Your task to perform on an android device: Do I have any events tomorrow? Image 0: 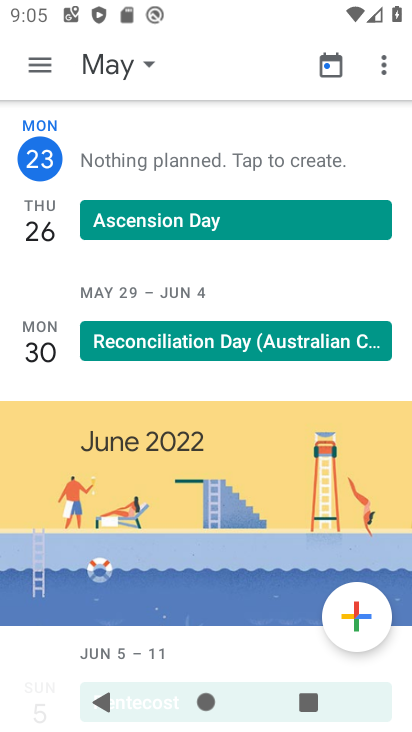
Step 0: click (43, 61)
Your task to perform on an android device: Do I have any events tomorrow? Image 1: 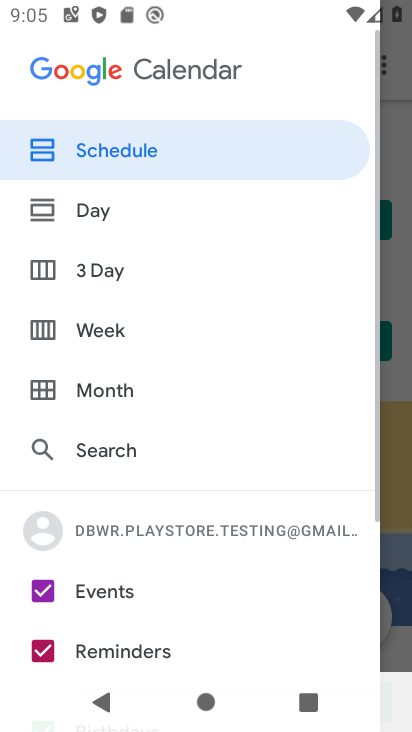
Step 1: click (40, 322)
Your task to perform on an android device: Do I have any events tomorrow? Image 2: 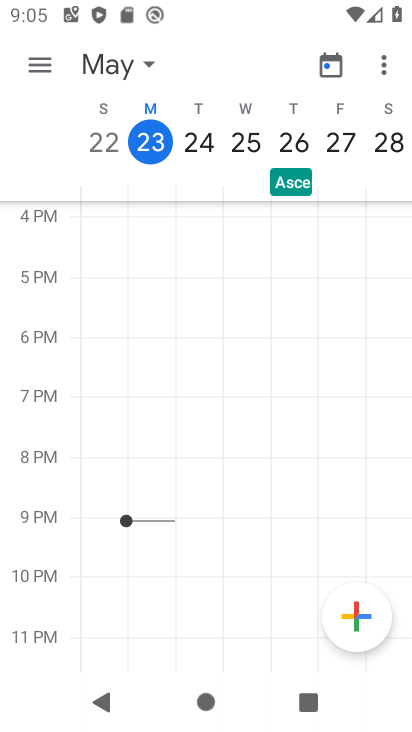
Step 2: drag from (266, 484) to (309, 174)
Your task to perform on an android device: Do I have any events tomorrow? Image 3: 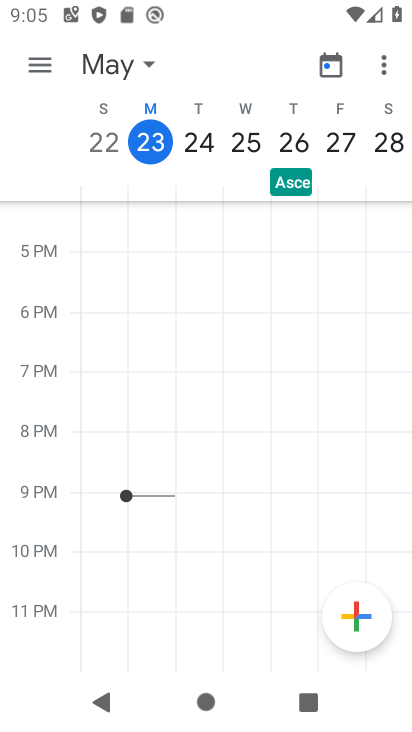
Step 3: drag from (271, 315) to (295, 611)
Your task to perform on an android device: Do I have any events tomorrow? Image 4: 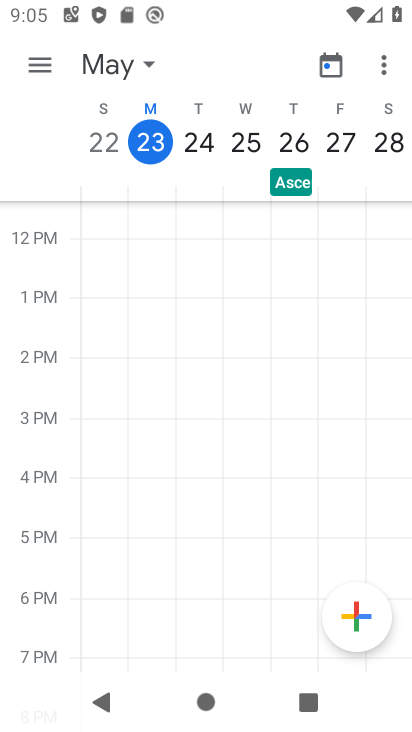
Step 4: drag from (302, 534) to (311, 606)
Your task to perform on an android device: Do I have any events tomorrow? Image 5: 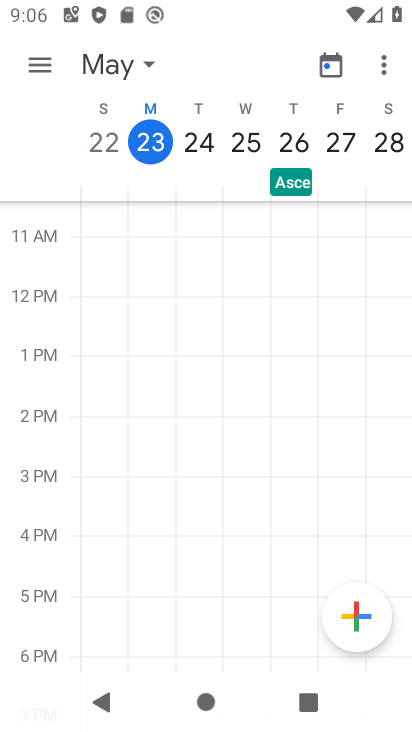
Step 5: drag from (209, 300) to (212, 611)
Your task to perform on an android device: Do I have any events tomorrow? Image 6: 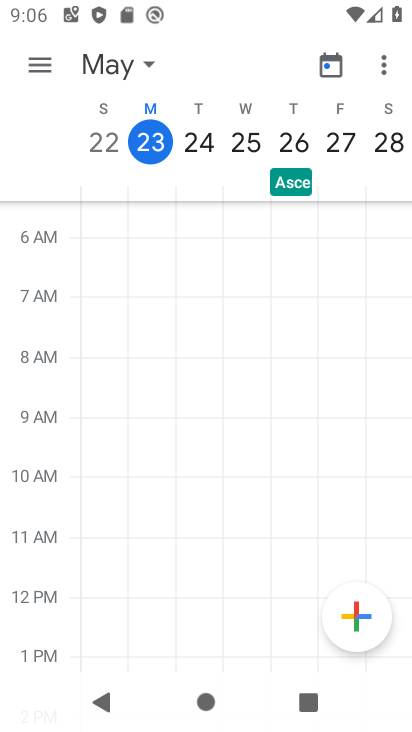
Step 6: drag from (220, 217) to (278, 585)
Your task to perform on an android device: Do I have any events tomorrow? Image 7: 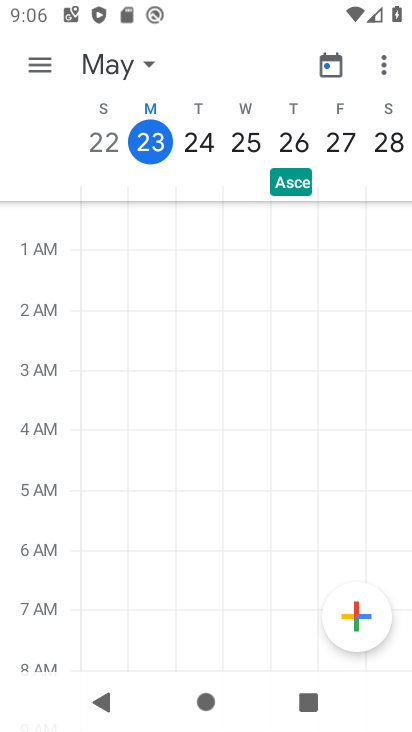
Step 7: drag from (229, 294) to (251, 412)
Your task to perform on an android device: Do I have any events tomorrow? Image 8: 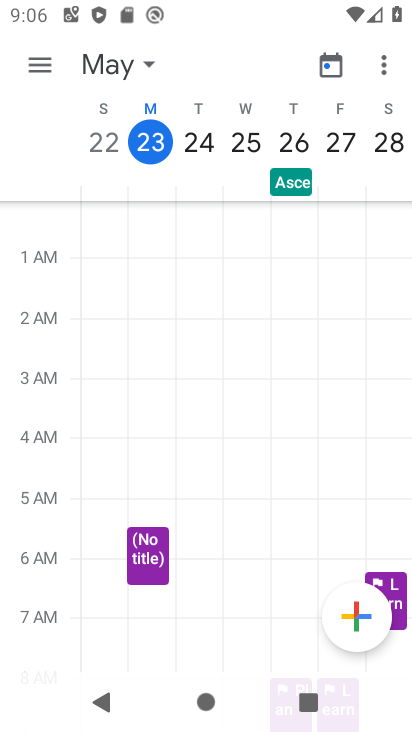
Step 8: click (42, 61)
Your task to perform on an android device: Do I have any events tomorrow? Image 9: 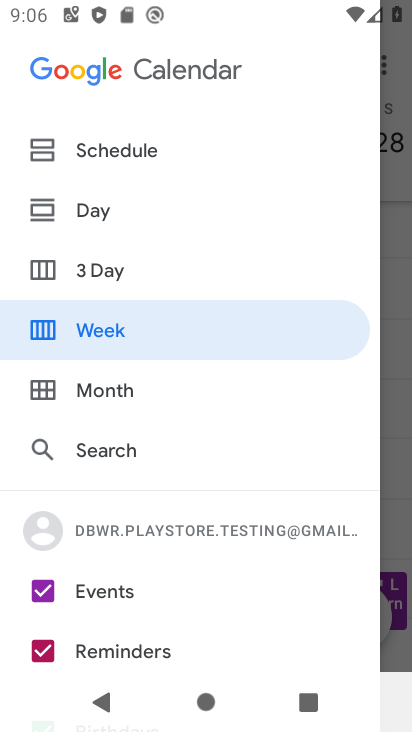
Step 9: click (105, 147)
Your task to perform on an android device: Do I have any events tomorrow? Image 10: 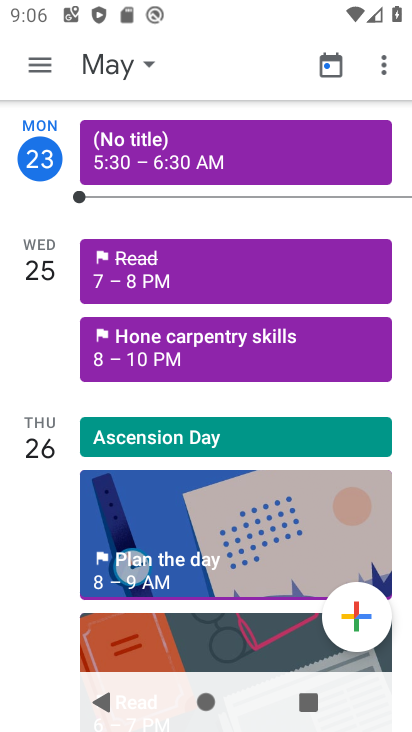
Step 10: task complete